Your task to perform on an android device: Open Youtube and go to "Your channel" Image 0: 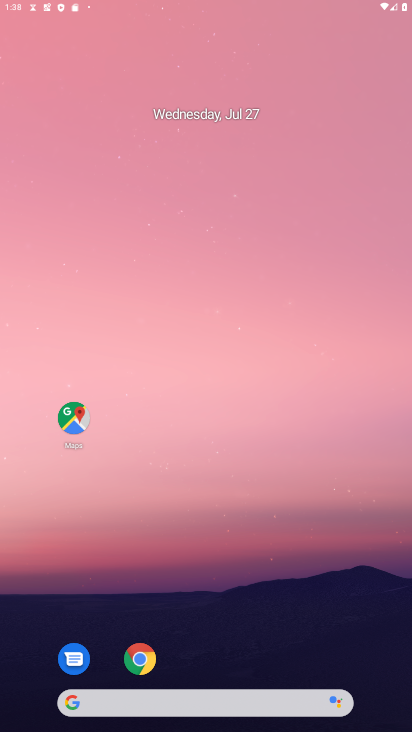
Step 0: press home button
Your task to perform on an android device: Open Youtube and go to "Your channel" Image 1: 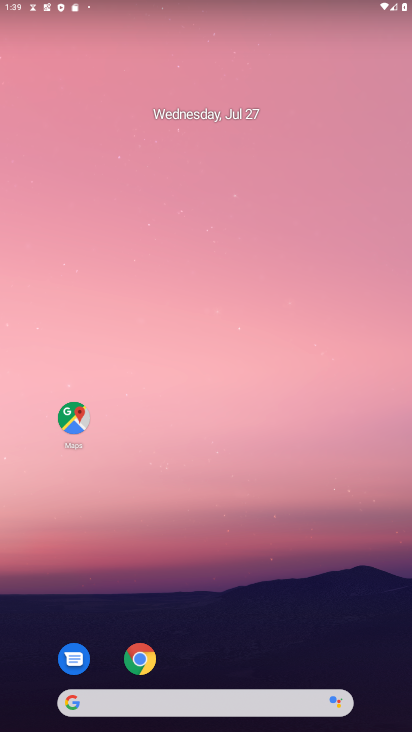
Step 1: drag from (209, 679) to (210, 74)
Your task to perform on an android device: Open Youtube and go to "Your channel" Image 2: 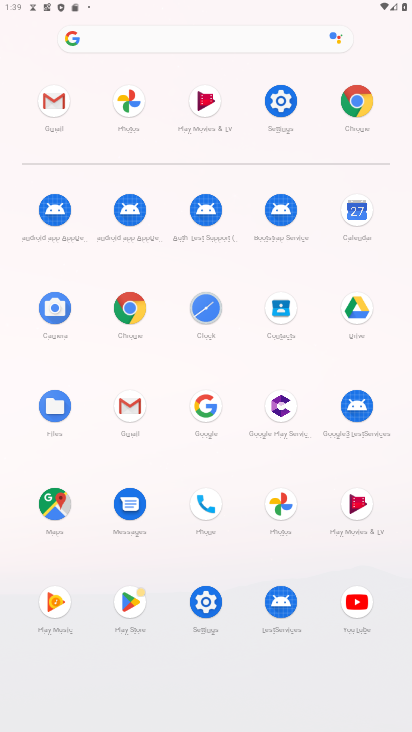
Step 2: click (357, 599)
Your task to perform on an android device: Open Youtube and go to "Your channel" Image 3: 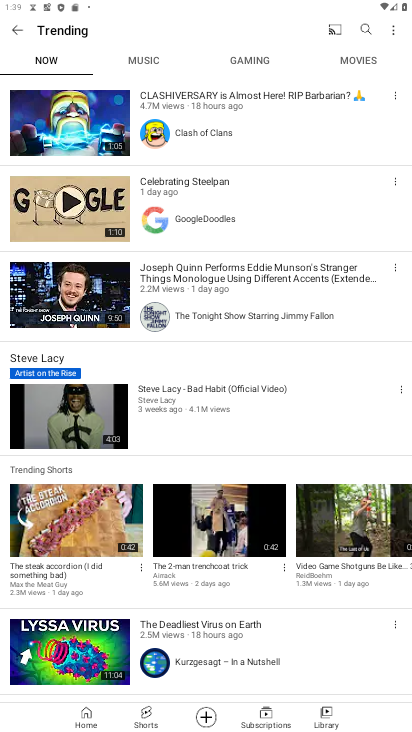
Step 3: click (13, 26)
Your task to perform on an android device: Open Youtube and go to "Your channel" Image 4: 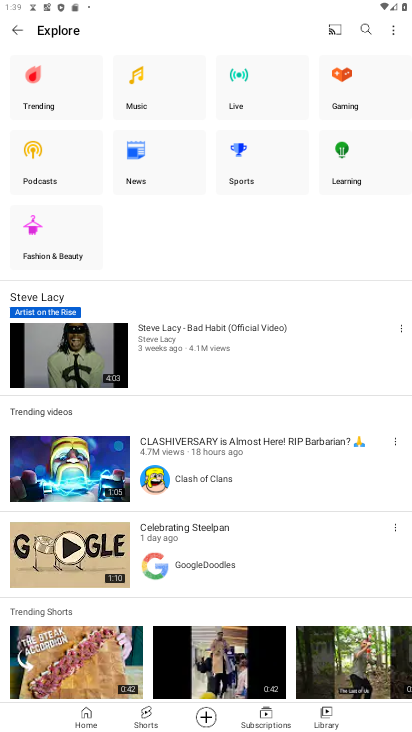
Step 4: click (19, 25)
Your task to perform on an android device: Open Youtube and go to "Your channel" Image 5: 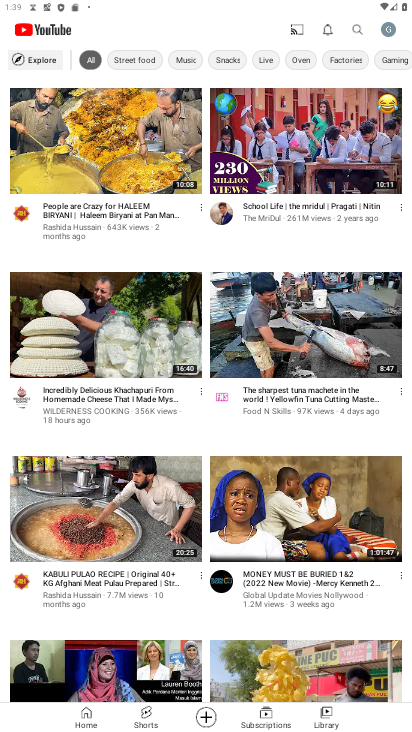
Step 5: click (389, 26)
Your task to perform on an android device: Open Youtube and go to "Your channel" Image 6: 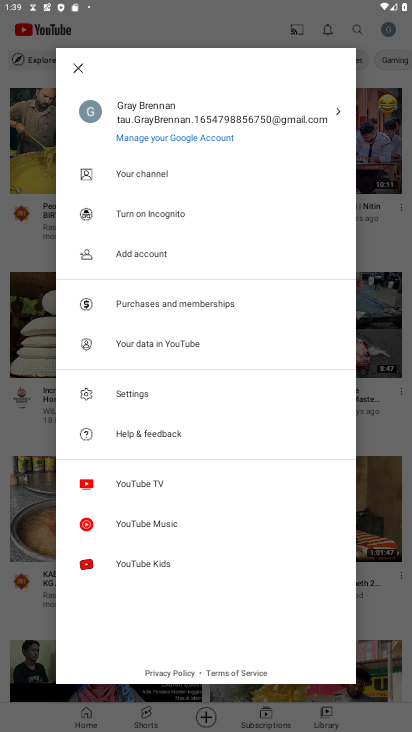
Step 6: click (145, 170)
Your task to perform on an android device: Open Youtube and go to "Your channel" Image 7: 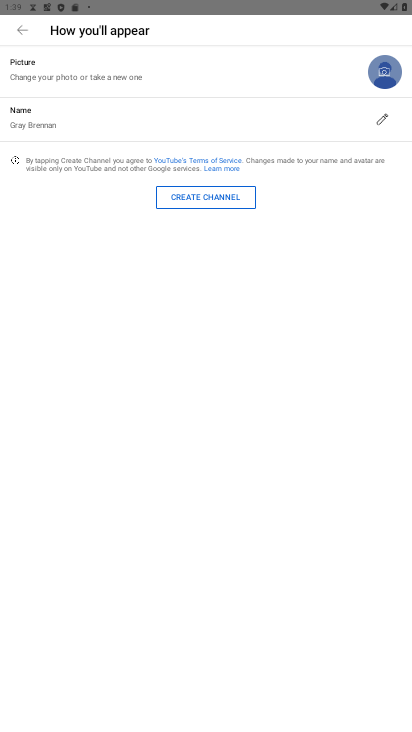
Step 7: task complete